Your task to perform on an android device: Play the last video I watched on Youtube Image 0: 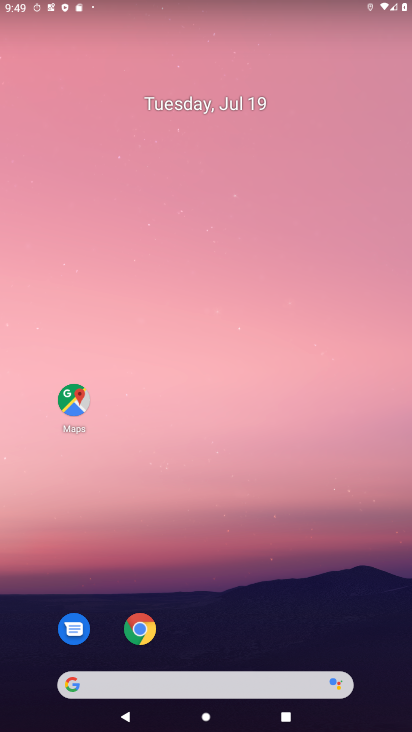
Step 0: drag from (241, 638) to (280, 2)
Your task to perform on an android device: Play the last video I watched on Youtube Image 1: 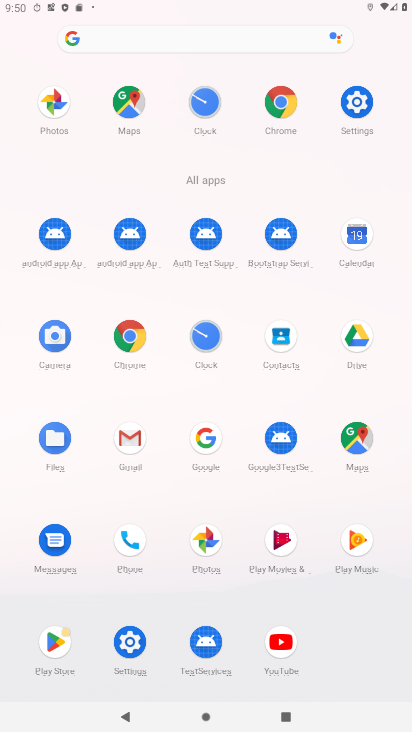
Step 1: click (283, 652)
Your task to perform on an android device: Play the last video I watched on Youtube Image 2: 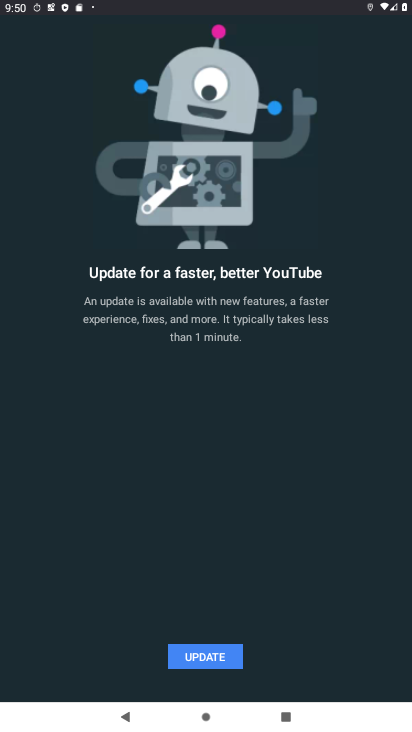
Step 2: click (217, 659)
Your task to perform on an android device: Play the last video I watched on Youtube Image 3: 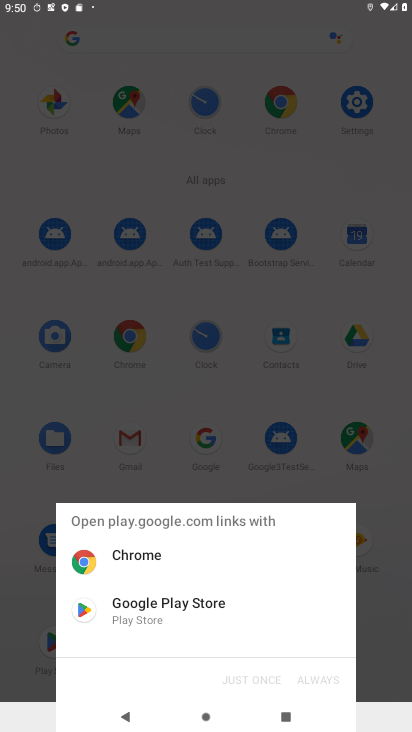
Step 3: click (138, 601)
Your task to perform on an android device: Play the last video I watched on Youtube Image 4: 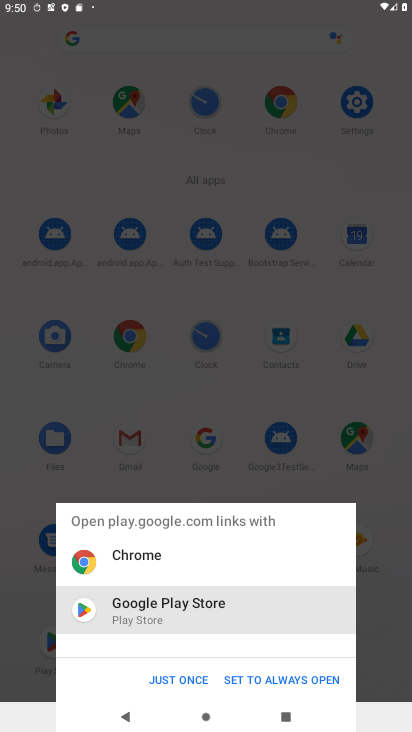
Step 4: click (177, 681)
Your task to perform on an android device: Play the last video I watched on Youtube Image 5: 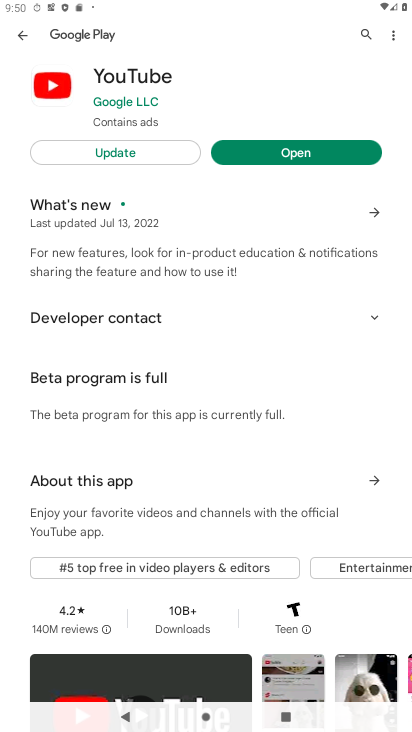
Step 5: click (111, 156)
Your task to perform on an android device: Play the last video I watched on Youtube Image 6: 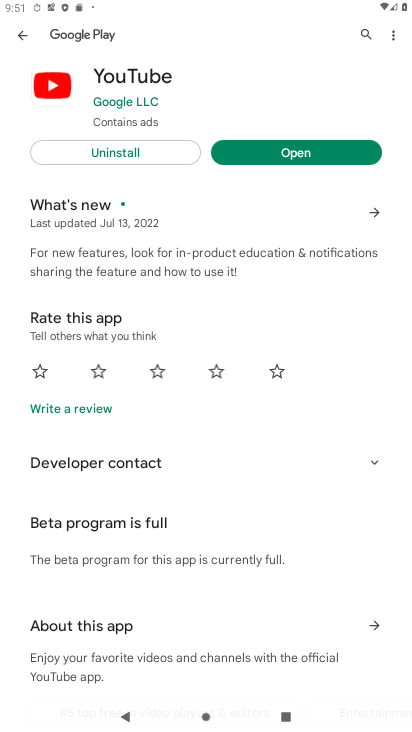
Step 6: click (312, 150)
Your task to perform on an android device: Play the last video I watched on Youtube Image 7: 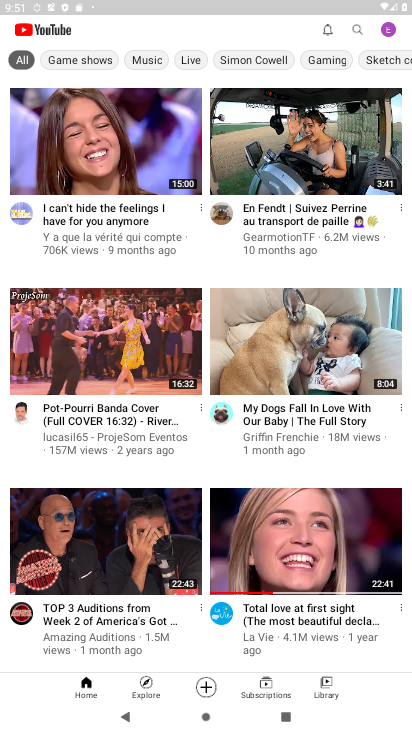
Step 7: click (331, 686)
Your task to perform on an android device: Play the last video I watched on Youtube Image 8: 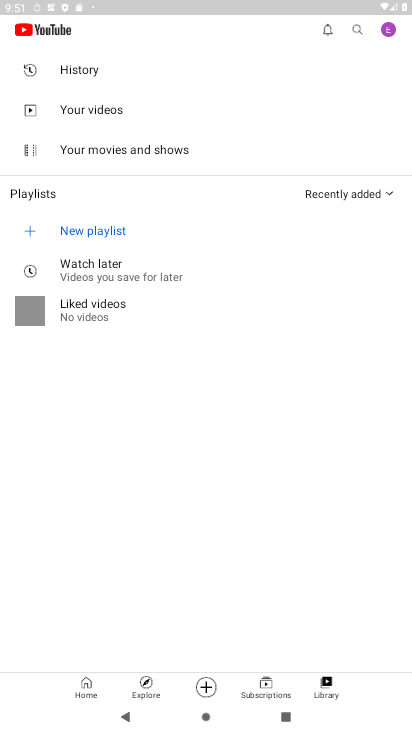
Step 8: task complete